Your task to perform on an android device: turn on showing notifications on the lock screen Image 0: 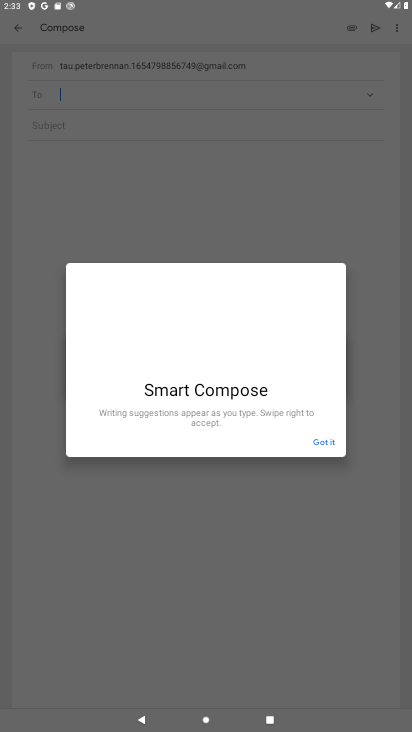
Step 0: press home button
Your task to perform on an android device: turn on showing notifications on the lock screen Image 1: 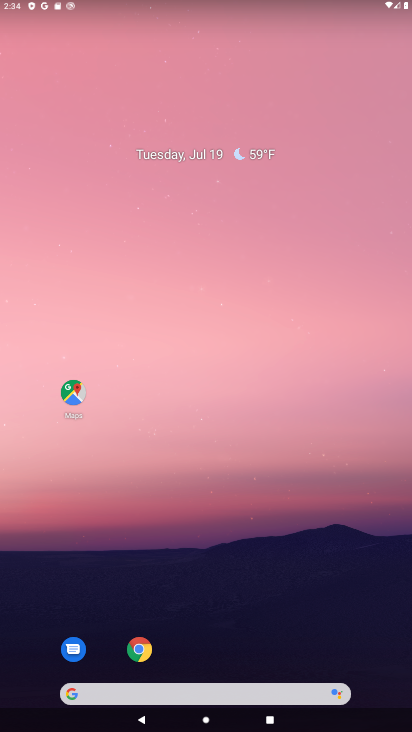
Step 1: click (276, 325)
Your task to perform on an android device: turn on showing notifications on the lock screen Image 2: 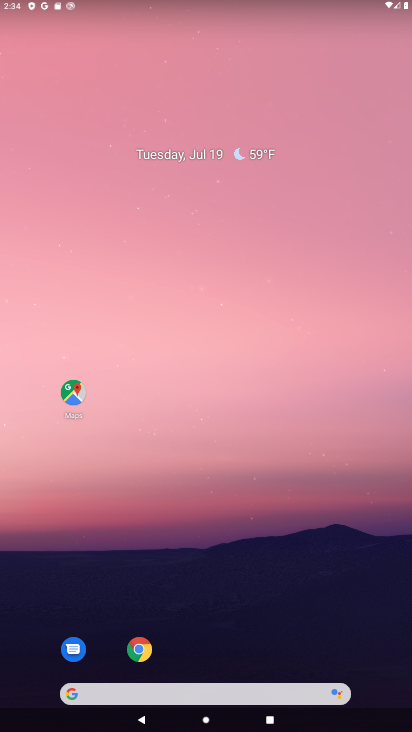
Step 2: drag from (287, 578) to (285, 7)
Your task to perform on an android device: turn on showing notifications on the lock screen Image 3: 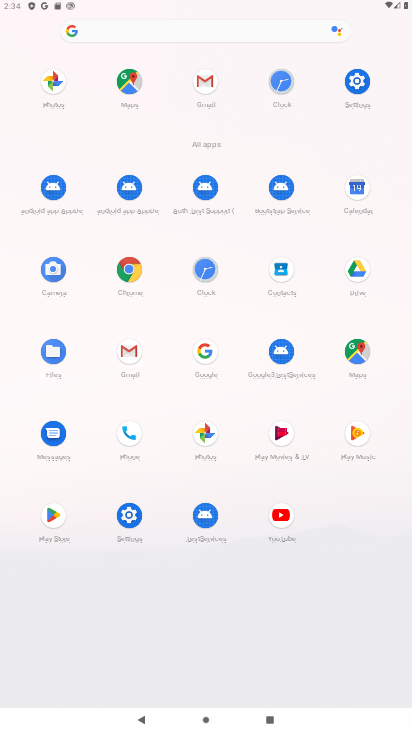
Step 3: click (358, 76)
Your task to perform on an android device: turn on showing notifications on the lock screen Image 4: 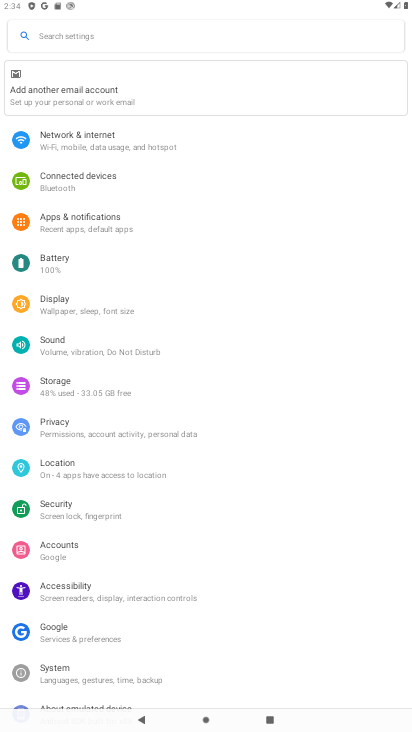
Step 4: click (77, 215)
Your task to perform on an android device: turn on showing notifications on the lock screen Image 5: 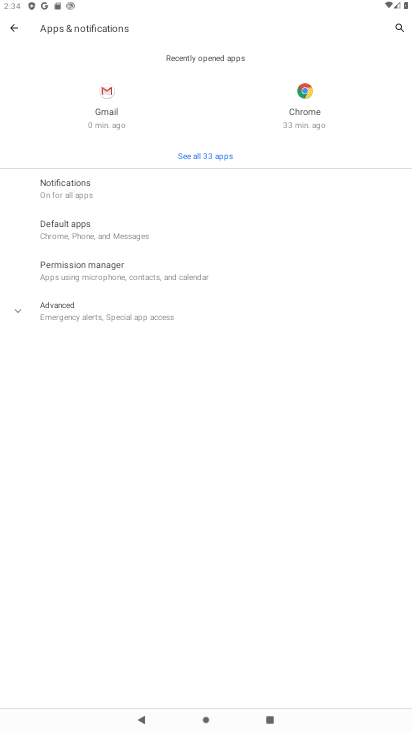
Step 5: click (90, 196)
Your task to perform on an android device: turn on showing notifications on the lock screen Image 6: 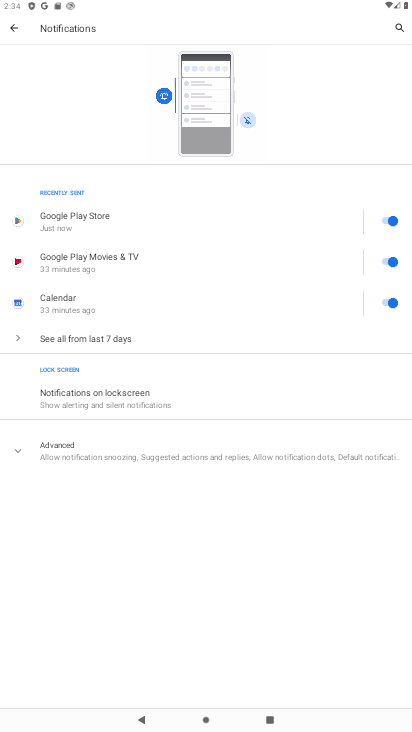
Step 6: click (120, 401)
Your task to perform on an android device: turn on showing notifications on the lock screen Image 7: 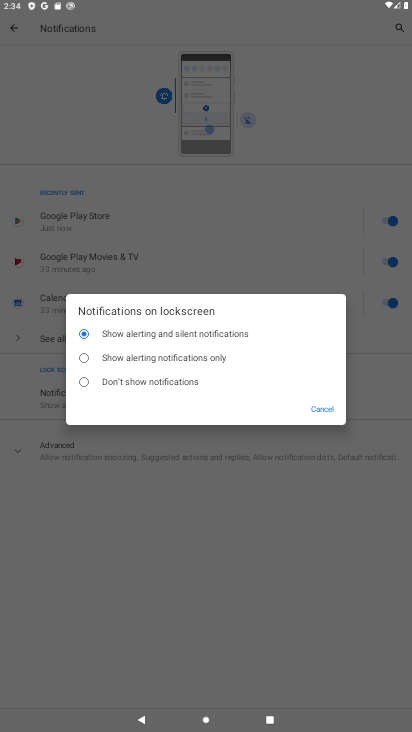
Step 7: click (155, 332)
Your task to perform on an android device: turn on showing notifications on the lock screen Image 8: 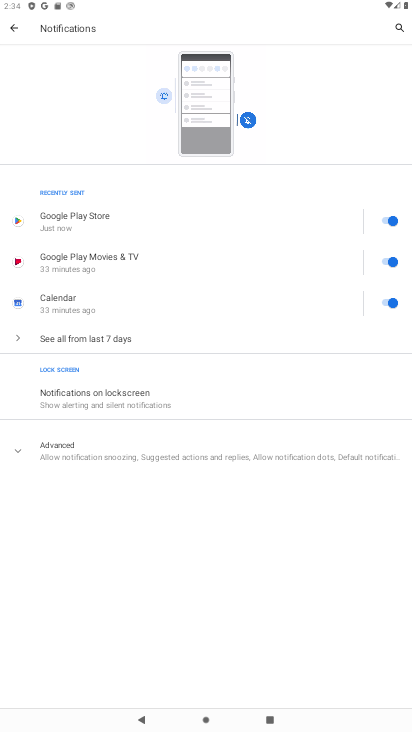
Step 8: task complete